Your task to perform on an android device: Open notification settings Image 0: 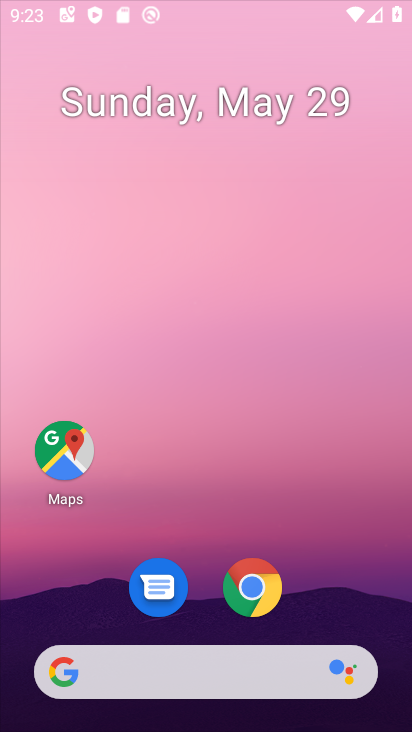
Step 0: click (260, 599)
Your task to perform on an android device: Open notification settings Image 1: 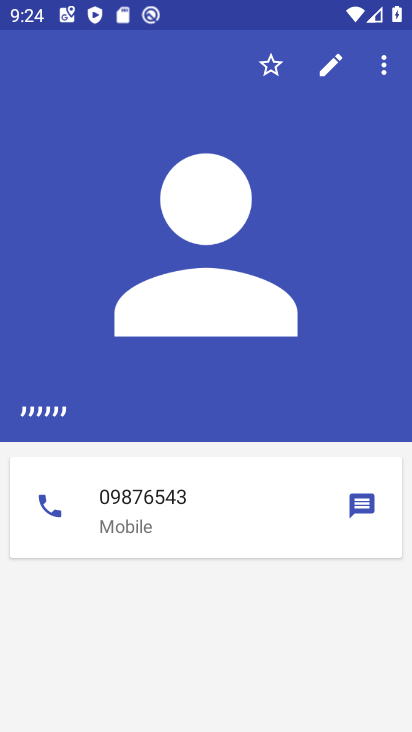
Step 1: press home button
Your task to perform on an android device: Open notification settings Image 2: 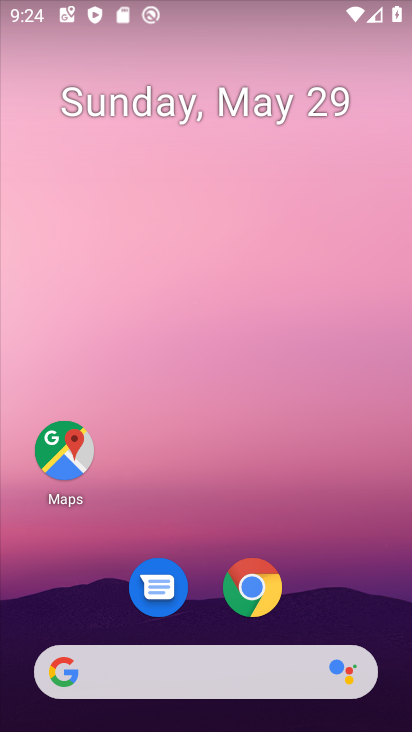
Step 2: drag from (299, 473) to (345, 0)
Your task to perform on an android device: Open notification settings Image 3: 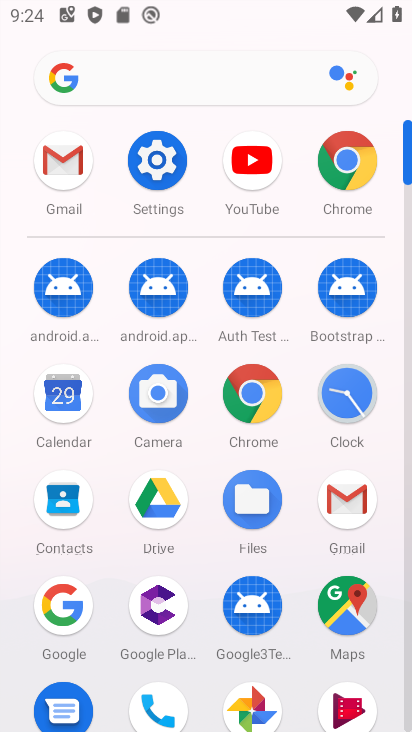
Step 3: click (171, 157)
Your task to perform on an android device: Open notification settings Image 4: 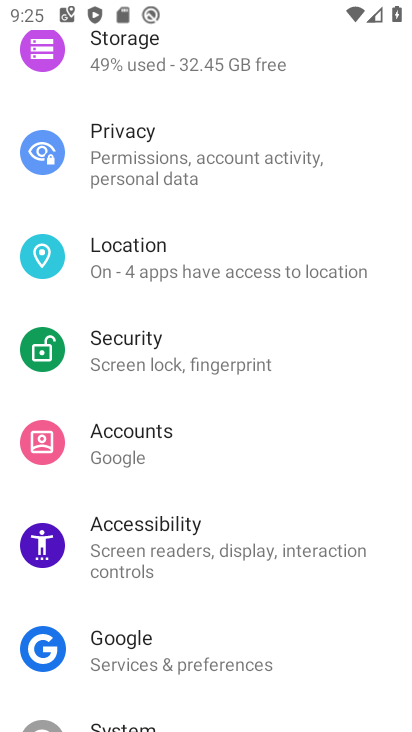
Step 4: drag from (215, 147) to (220, 649)
Your task to perform on an android device: Open notification settings Image 5: 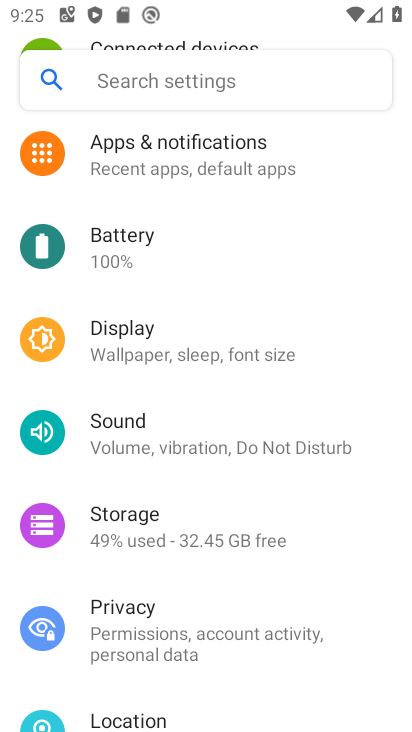
Step 5: click (177, 143)
Your task to perform on an android device: Open notification settings Image 6: 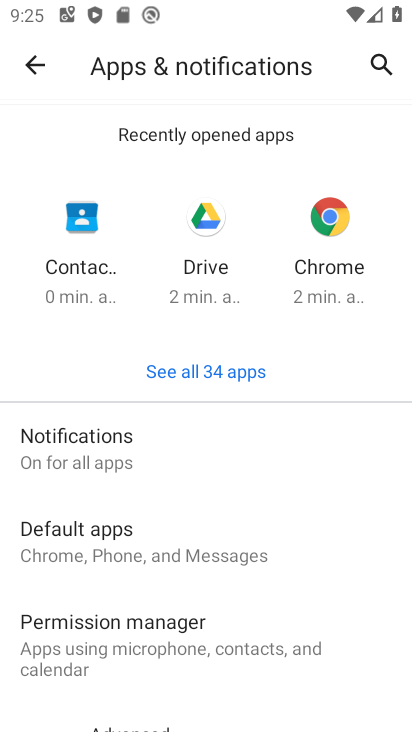
Step 6: task complete